Your task to perform on an android device: toggle sleep mode Image 0: 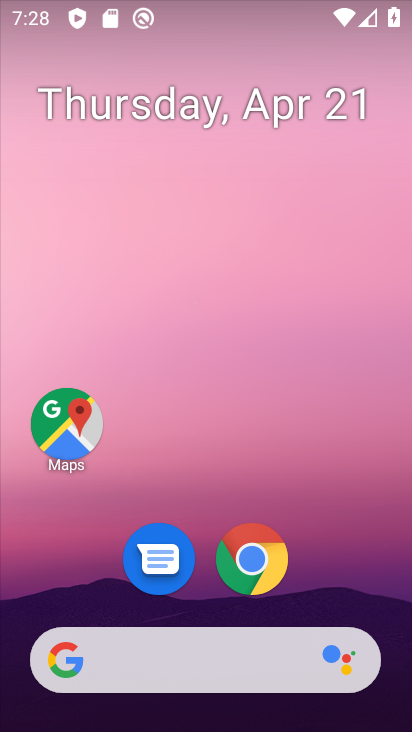
Step 0: drag from (360, 536) to (327, 125)
Your task to perform on an android device: toggle sleep mode Image 1: 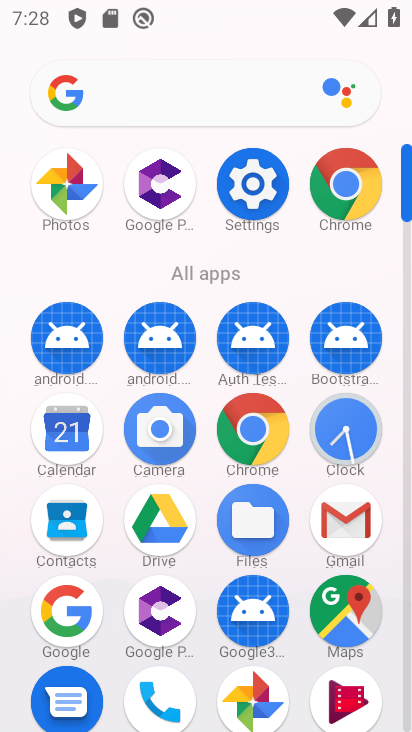
Step 1: click (258, 166)
Your task to perform on an android device: toggle sleep mode Image 2: 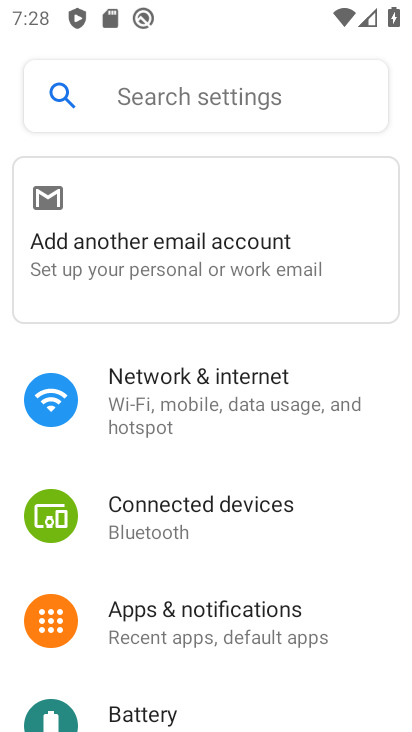
Step 2: click (256, 119)
Your task to perform on an android device: toggle sleep mode Image 3: 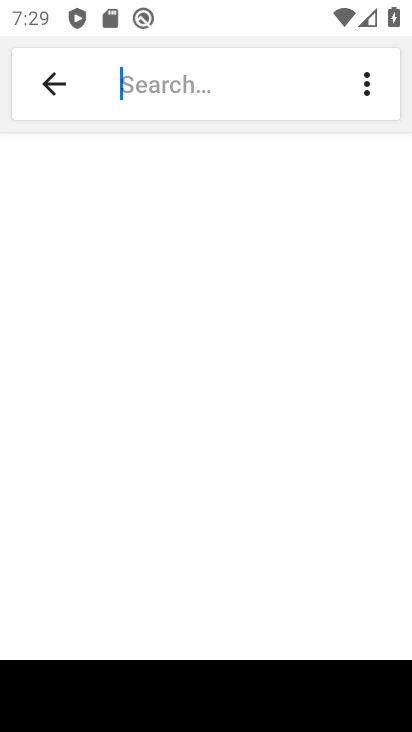
Step 3: type "sleep mode"
Your task to perform on an android device: toggle sleep mode Image 4: 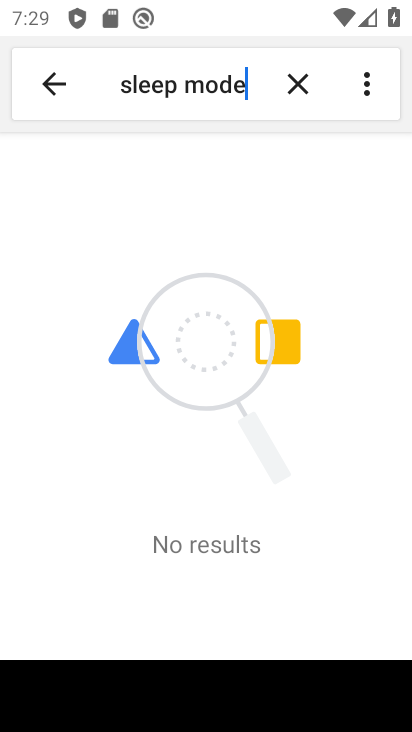
Step 4: task complete